Your task to perform on an android device: turn on javascript in the chrome app Image 0: 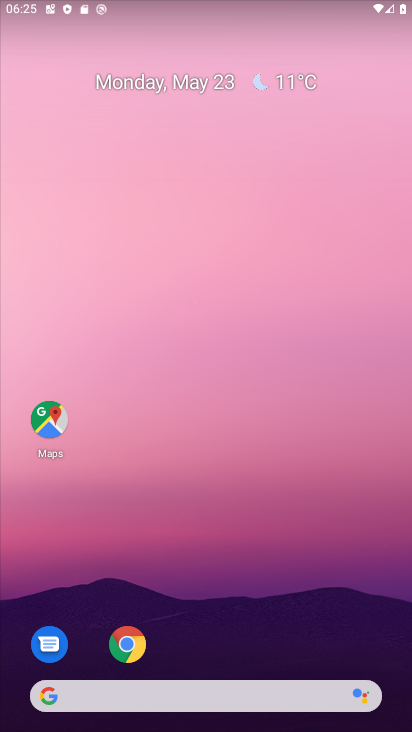
Step 0: click (130, 645)
Your task to perform on an android device: turn on javascript in the chrome app Image 1: 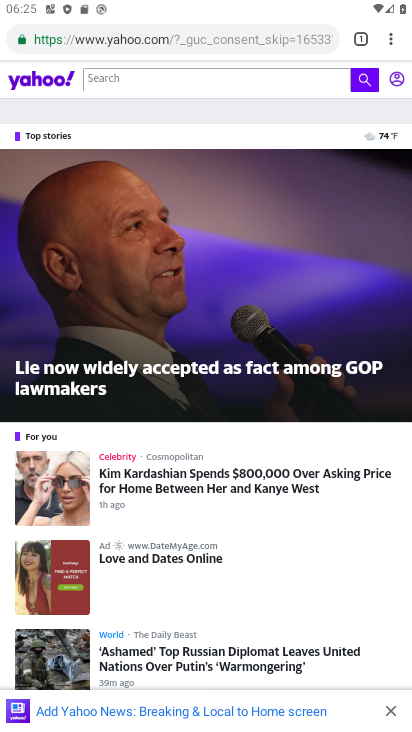
Step 1: click (382, 45)
Your task to perform on an android device: turn on javascript in the chrome app Image 2: 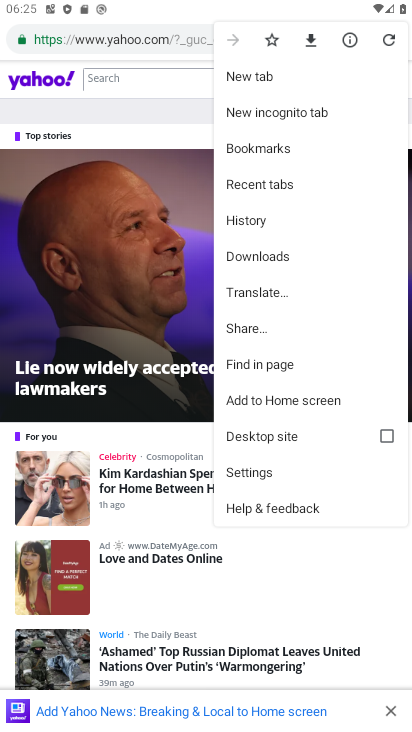
Step 2: click (271, 479)
Your task to perform on an android device: turn on javascript in the chrome app Image 3: 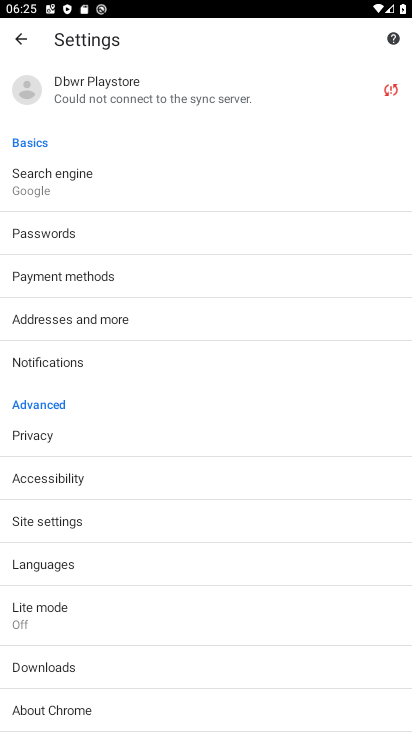
Step 3: click (43, 530)
Your task to perform on an android device: turn on javascript in the chrome app Image 4: 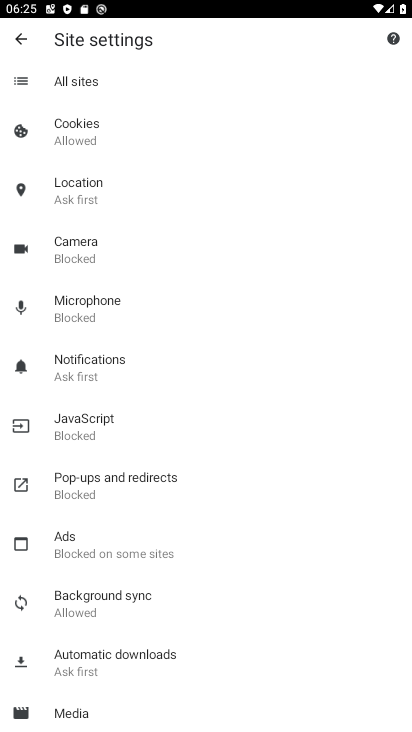
Step 4: click (84, 432)
Your task to perform on an android device: turn on javascript in the chrome app Image 5: 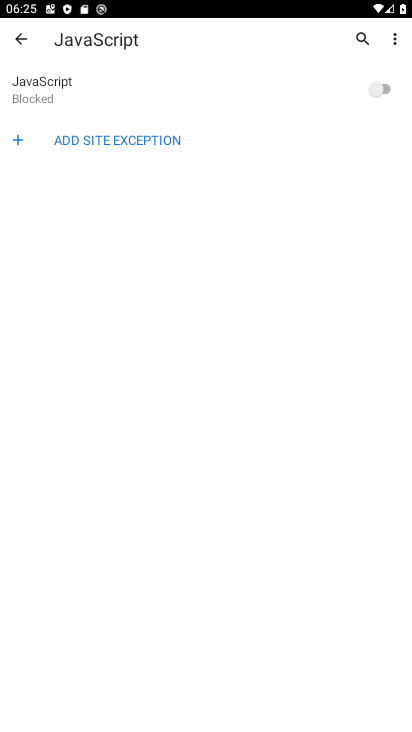
Step 5: click (390, 87)
Your task to perform on an android device: turn on javascript in the chrome app Image 6: 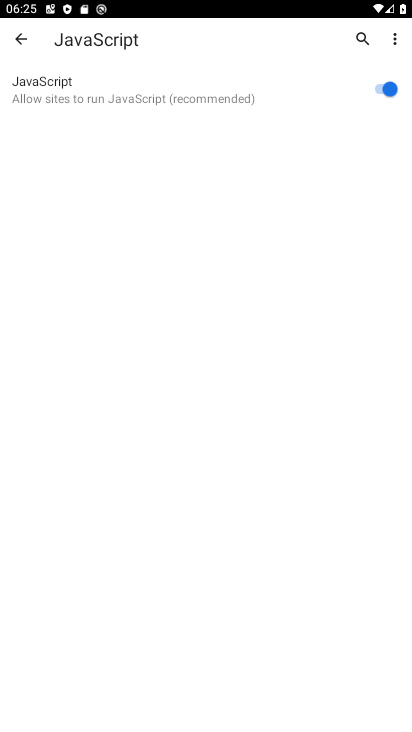
Step 6: task complete